Your task to perform on an android device: Go to Android settings Image 0: 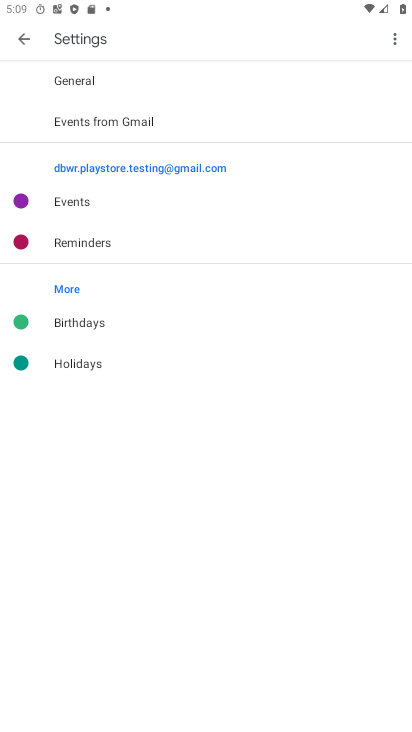
Step 0: press home button
Your task to perform on an android device: Go to Android settings Image 1: 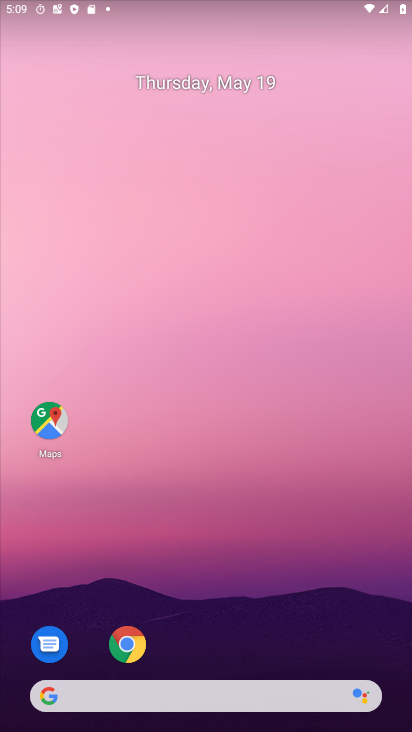
Step 1: drag from (164, 674) to (220, 318)
Your task to perform on an android device: Go to Android settings Image 2: 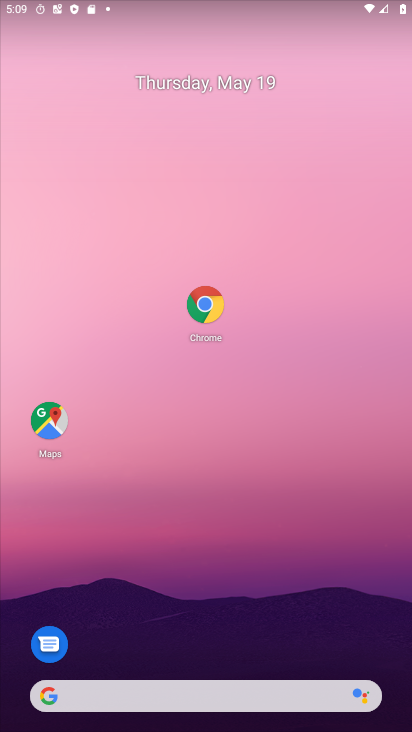
Step 2: drag from (246, 656) to (313, 90)
Your task to perform on an android device: Go to Android settings Image 3: 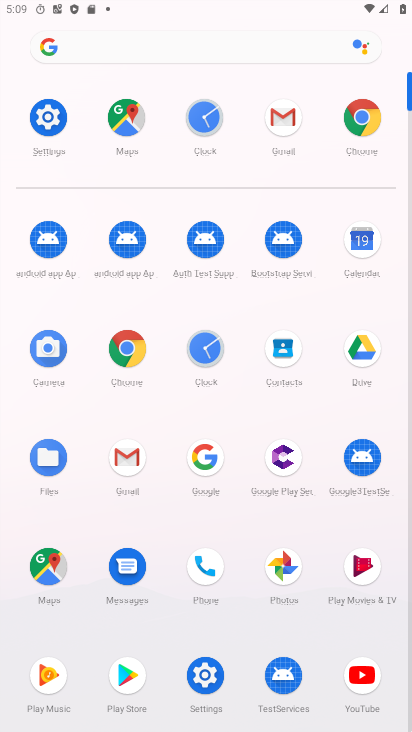
Step 3: click (52, 111)
Your task to perform on an android device: Go to Android settings Image 4: 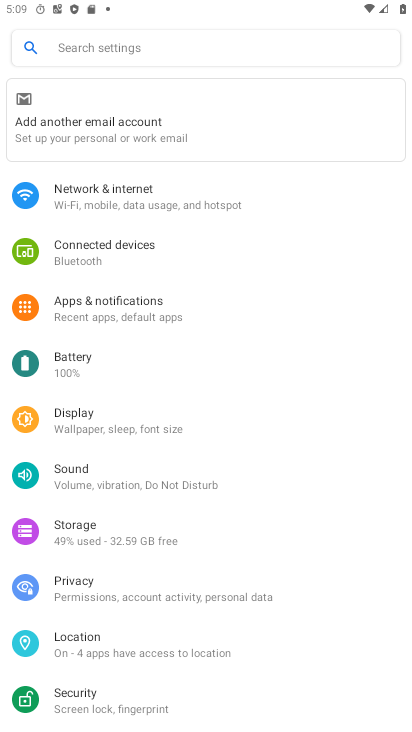
Step 4: task complete